Your task to perform on an android device: Show me popular videos on Youtube Image 0: 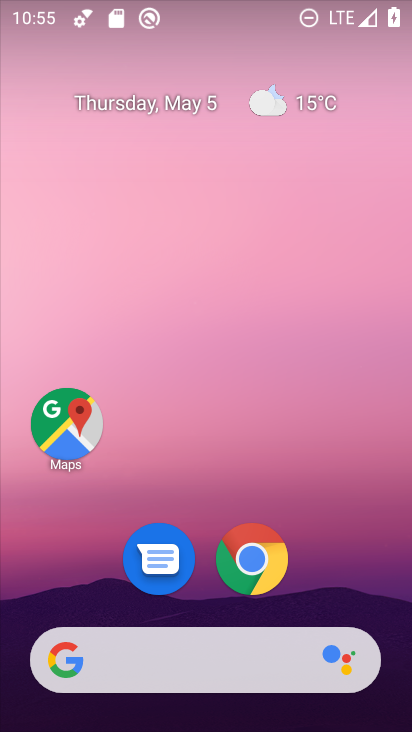
Step 0: drag from (395, 650) to (238, 22)
Your task to perform on an android device: Show me popular videos on Youtube Image 1: 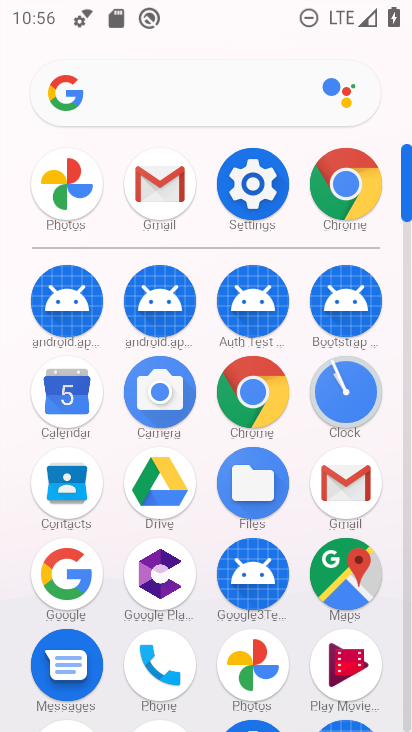
Step 1: click (409, 718)
Your task to perform on an android device: Show me popular videos on Youtube Image 2: 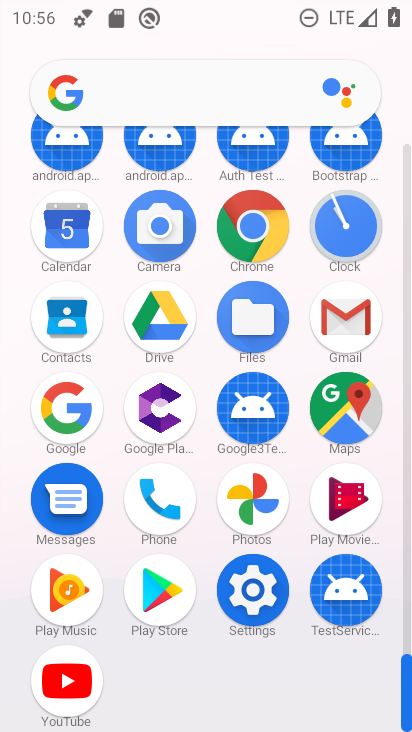
Step 2: click (90, 674)
Your task to perform on an android device: Show me popular videos on Youtube Image 3: 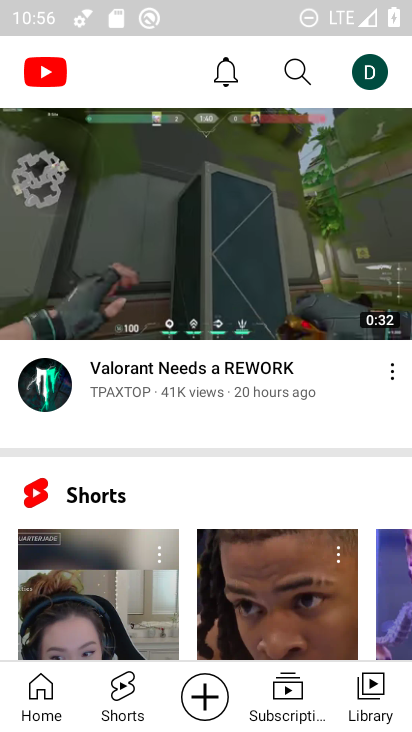
Step 3: click (356, 69)
Your task to perform on an android device: Show me popular videos on Youtube Image 4: 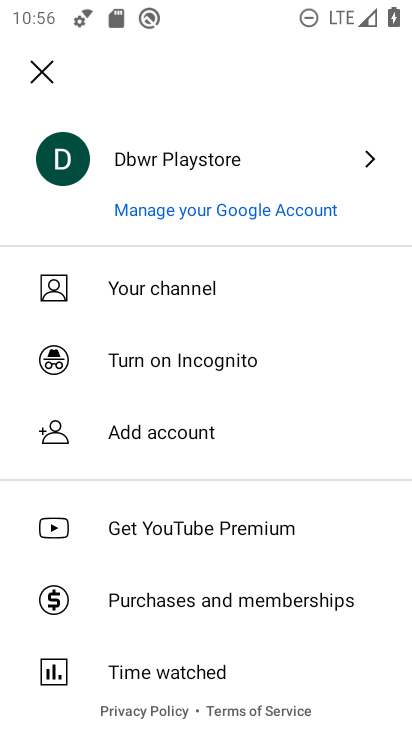
Step 4: click (29, 69)
Your task to perform on an android device: Show me popular videos on Youtube Image 5: 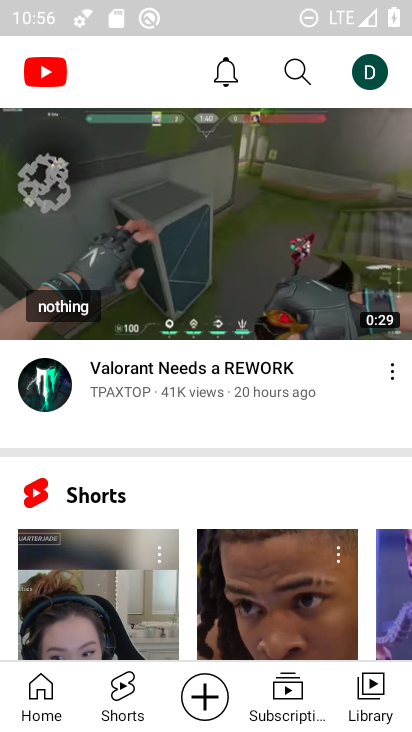
Step 5: click (385, 81)
Your task to perform on an android device: Show me popular videos on Youtube Image 6: 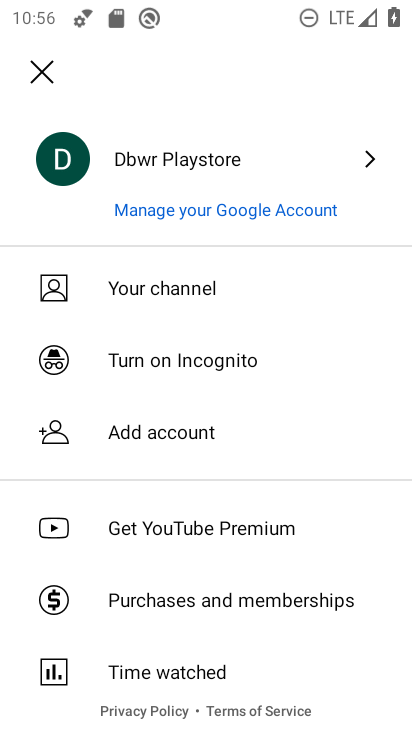
Step 6: click (200, 299)
Your task to perform on an android device: Show me popular videos on Youtube Image 7: 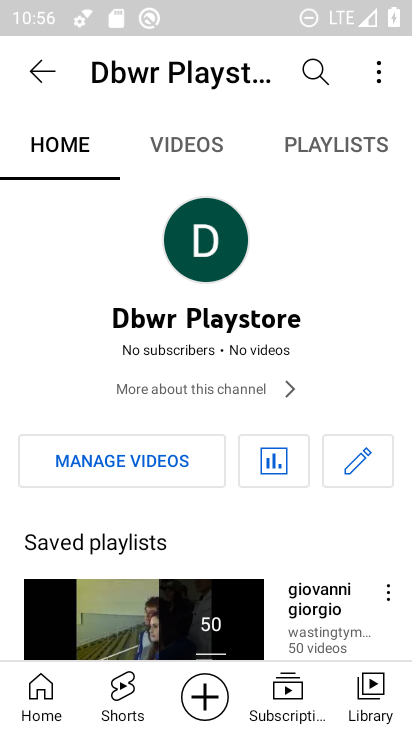
Step 7: task complete